Your task to perform on an android device: Do I have any events this weekend? Image 0: 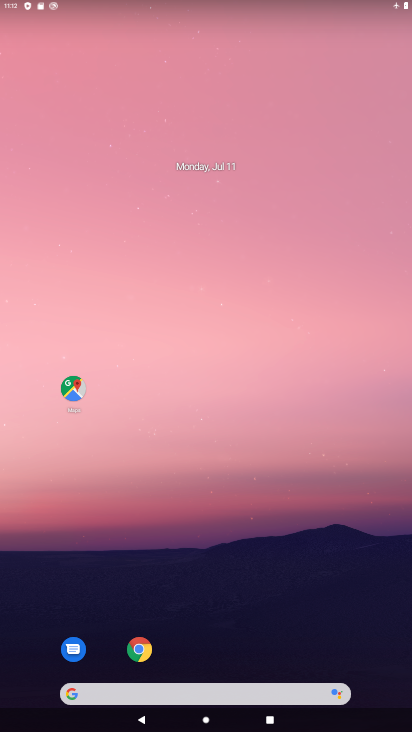
Step 0: drag from (275, 363) to (262, 64)
Your task to perform on an android device: Do I have any events this weekend? Image 1: 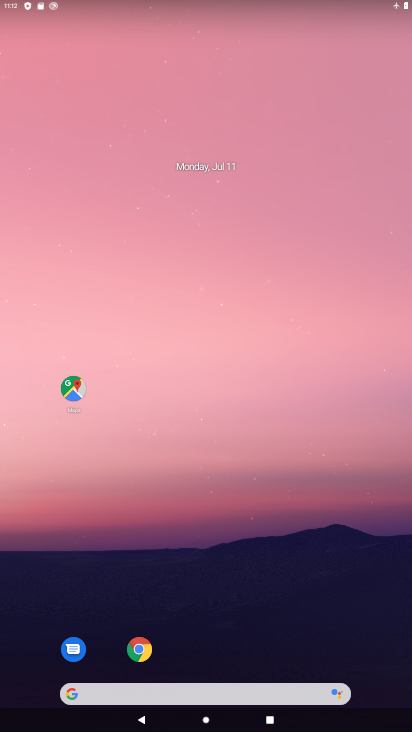
Step 1: drag from (302, 581) to (245, 10)
Your task to perform on an android device: Do I have any events this weekend? Image 2: 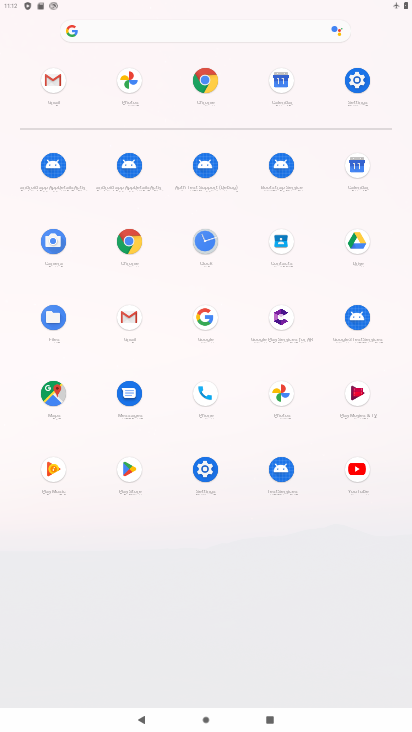
Step 2: click (360, 165)
Your task to perform on an android device: Do I have any events this weekend? Image 3: 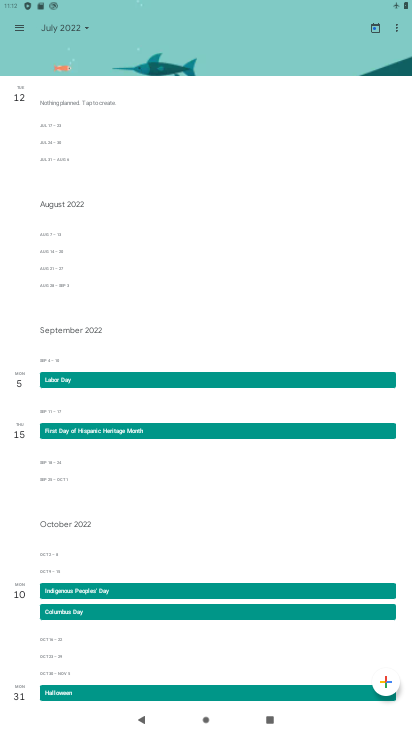
Step 3: click (15, 24)
Your task to perform on an android device: Do I have any events this weekend? Image 4: 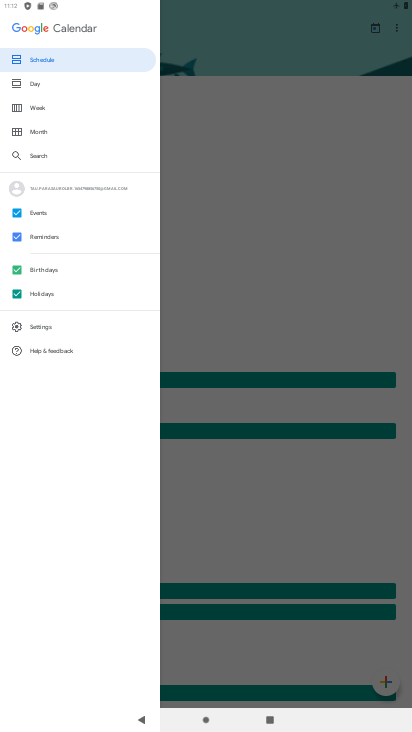
Step 4: click (38, 108)
Your task to perform on an android device: Do I have any events this weekend? Image 5: 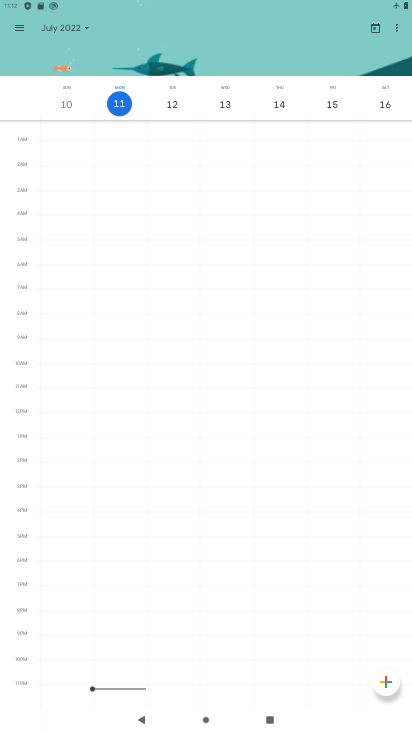
Step 5: click (387, 103)
Your task to perform on an android device: Do I have any events this weekend? Image 6: 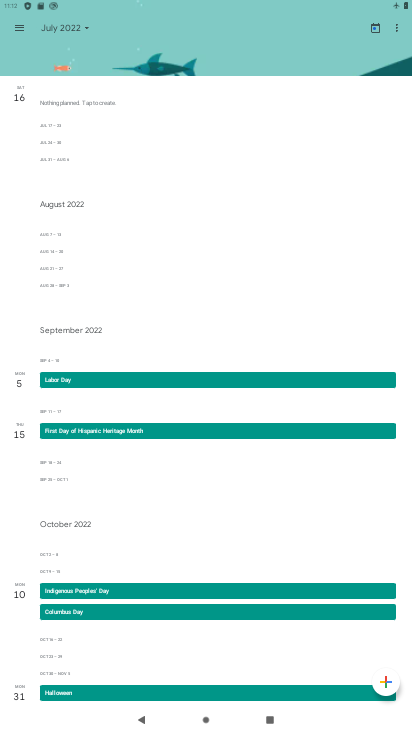
Step 6: task complete